Your task to perform on an android device: turn off location history Image 0: 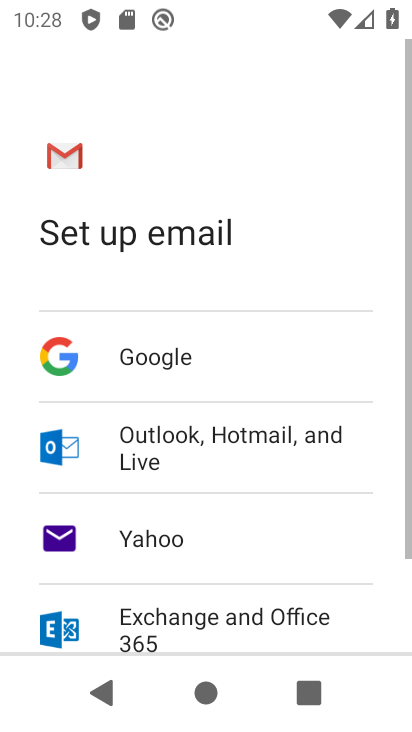
Step 0: press home button
Your task to perform on an android device: turn off location history Image 1: 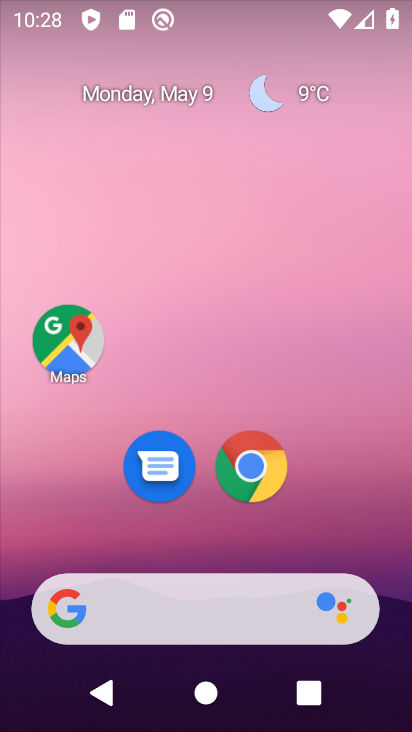
Step 1: drag from (342, 455) to (294, 106)
Your task to perform on an android device: turn off location history Image 2: 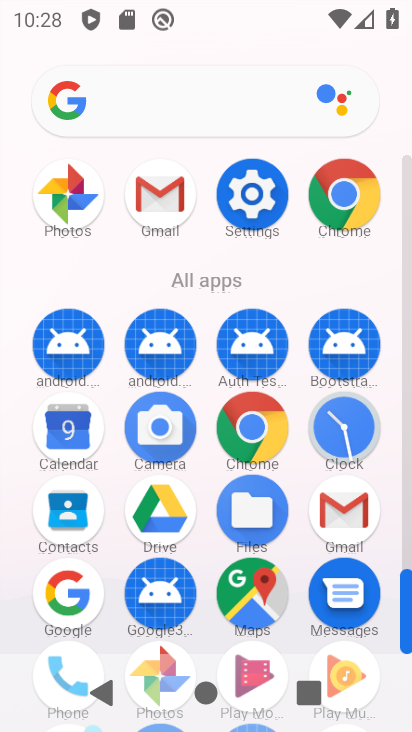
Step 2: drag from (217, 297) to (212, 137)
Your task to perform on an android device: turn off location history Image 3: 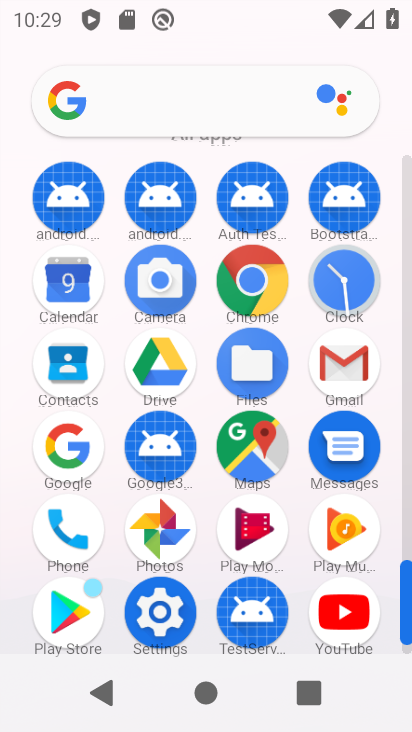
Step 3: drag from (210, 573) to (191, 318)
Your task to perform on an android device: turn off location history Image 4: 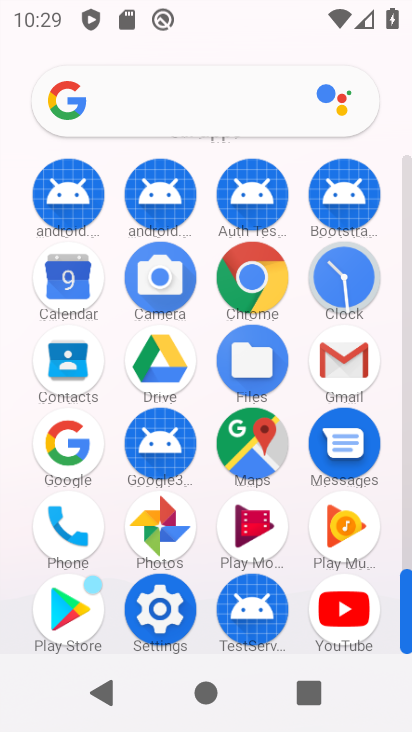
Step 4: click (159, 609)
Your task to perform on an android device: turn off location history Image 5: 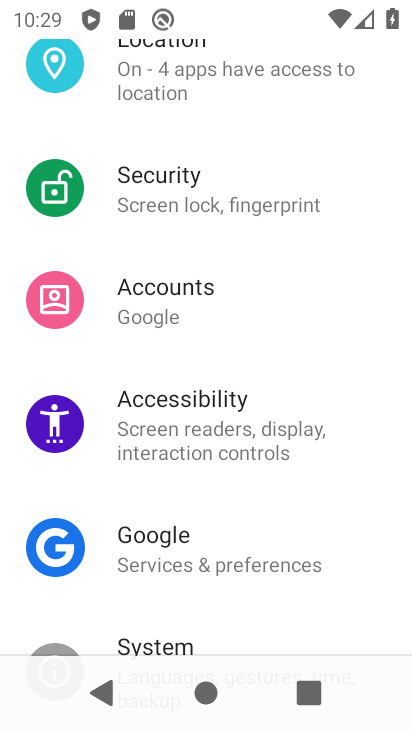
Step 5: drag from (278, 543) to (213, 236)
Your task to perform on an android device: turn off location history Image 6: 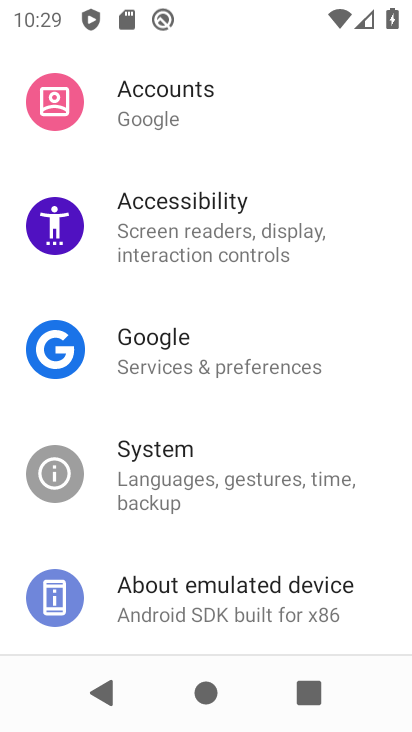
Step 6: drag from (218, 548) to (200, 184)
Your task to perform on an android device: turn off location history Image 7: 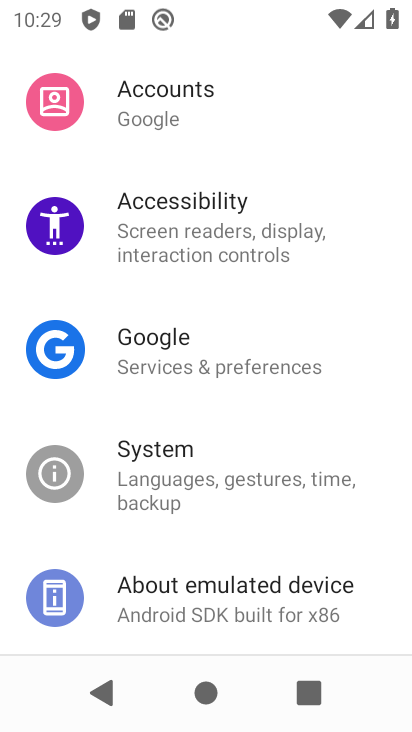
Step 7: drag from (183, 231) to (206, 616)
Your task to perform on an android device: turn off location history Image 8: 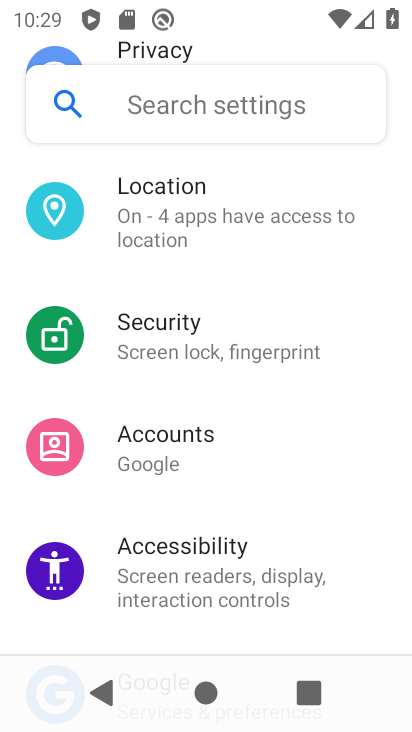
Step 8: click (140, 234)
Your task to perform on an android device: turn off location history Image 9: 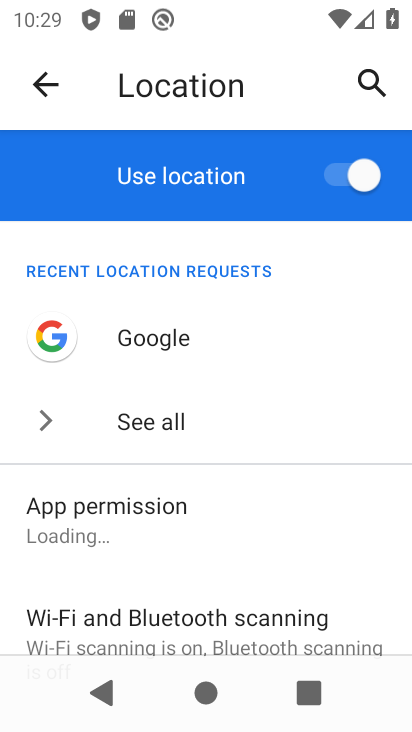
Step 9: drag from (178, 588) to (176, 256)
Your task to perform on an android device: turn off location history Image 10: 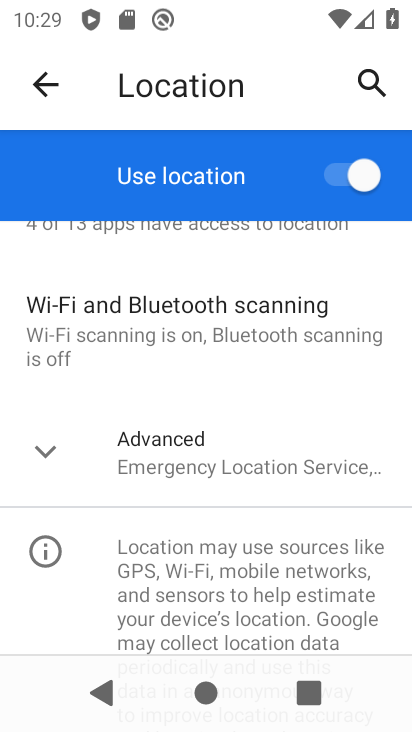
Step 10: click (161, 455)
Your task to perform on an android device: turn off location history Image 11: 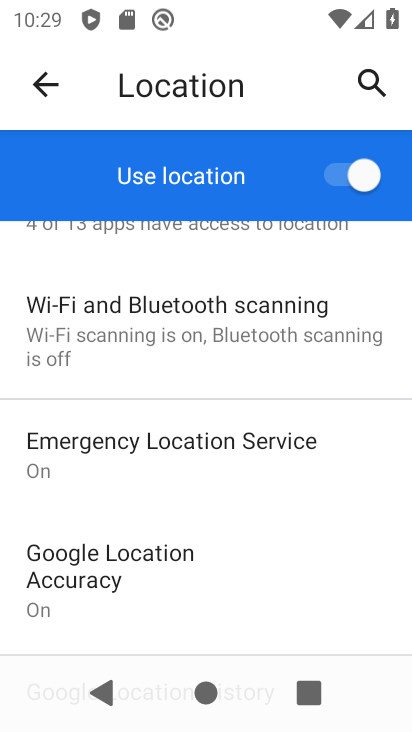
Step 11: drag from (184, 612) to (155, 281)
Your task to perform on an android device: turn off location history Image 12: 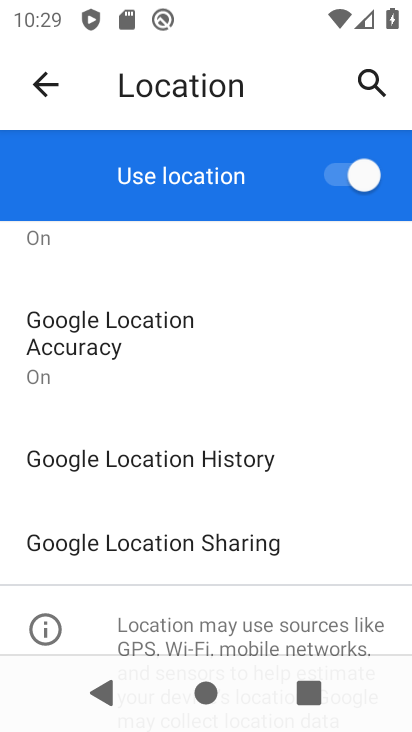
Step 12: click (175, 463)
Your task to perform on an android device: turn off location history Image 13: 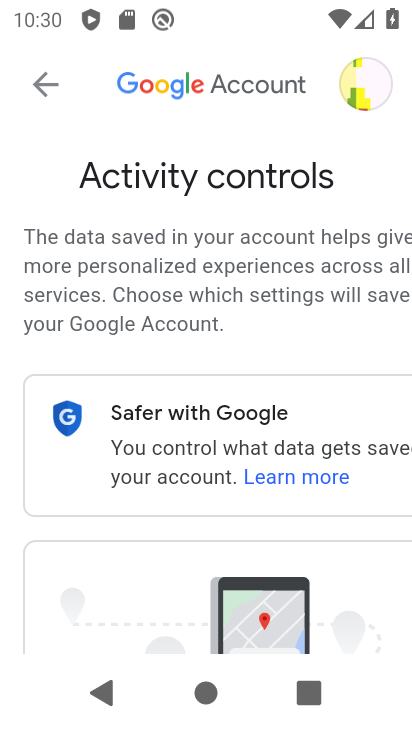
Step 13: drag from (224, 543) to (192, 206)
Your task to perform on an android device: turn off location history Image 14: 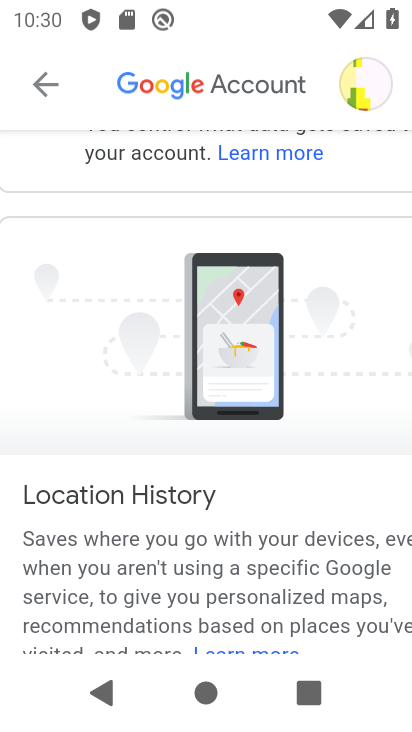
Step 14: drag from (217, 608) to (184, 247)
Your task to perform on an android device: turn off location history Image 15: 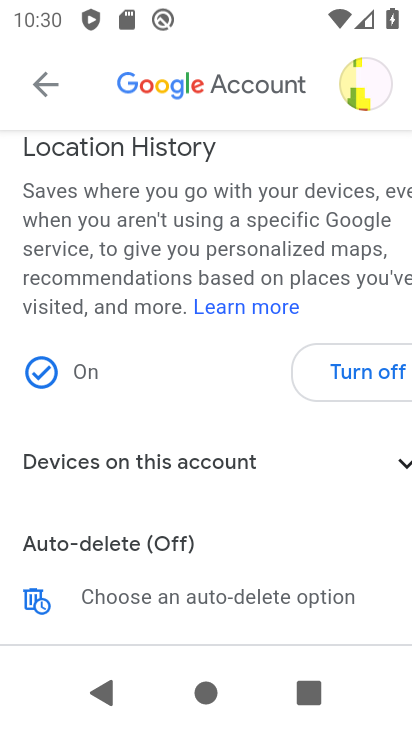
Step 15: click (351, 380)
Your task to perform on an android device: turn off location history Image 16: 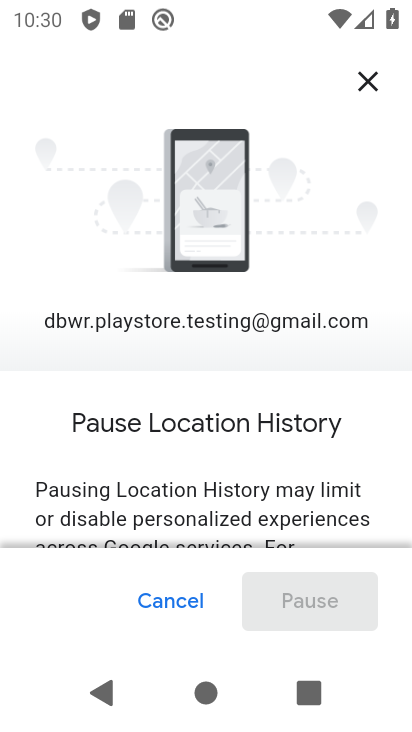
Step 16: drag from (294, 535) to (224, 133)
Your task to perform on an android device: turn off location history Image 17: 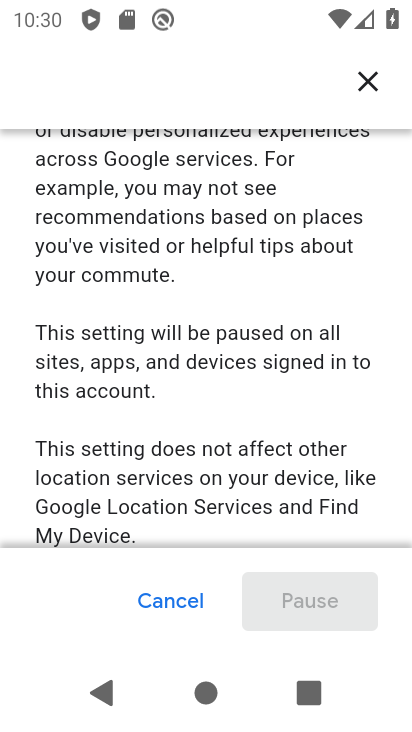
Step 17: drag from (241, 538) to (184, 115)
Your task to perform on an android device: turn off location history Image 18: 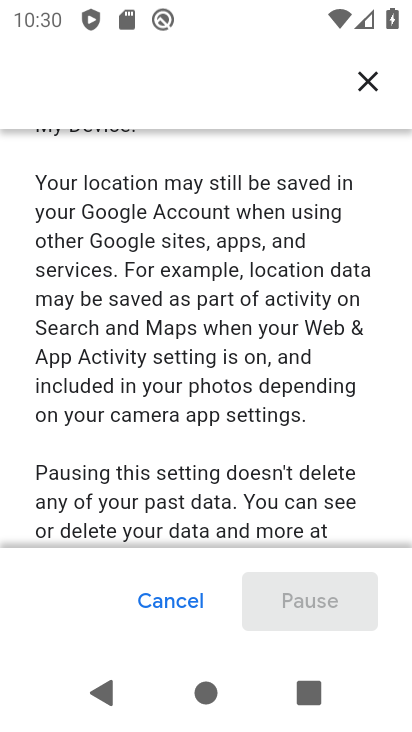
Step 18: drag from (251, 464) to (203, 51)
Your task to perform on an android device: turn off location history Image 19: 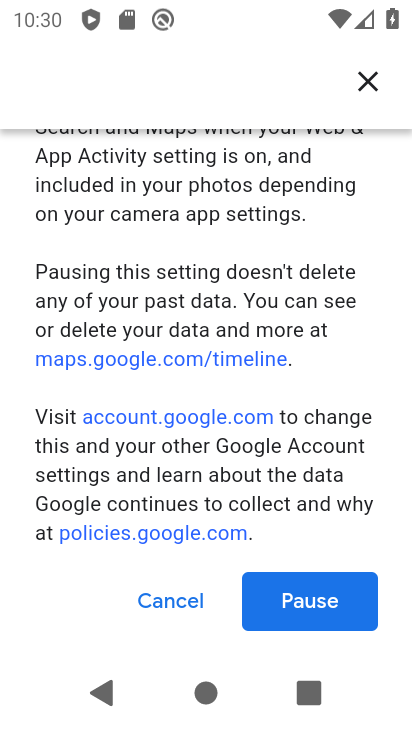
Step 19: click (284, 618)
Your task to perform on an android device: turn off location history Image 20: 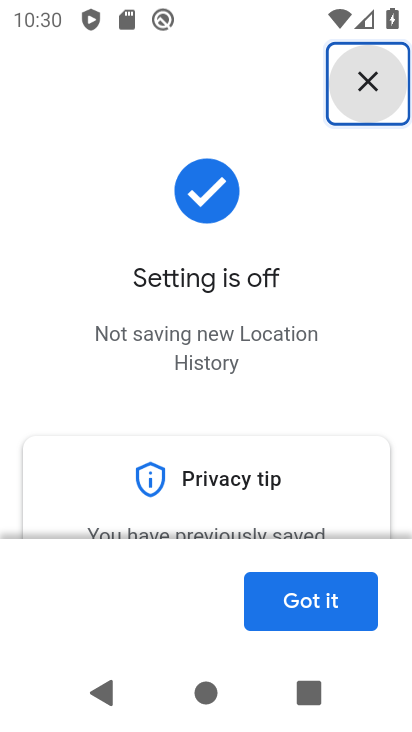
Step 20: click (309, 620)
Your task to perform on an android device: turn off location history Image 21: 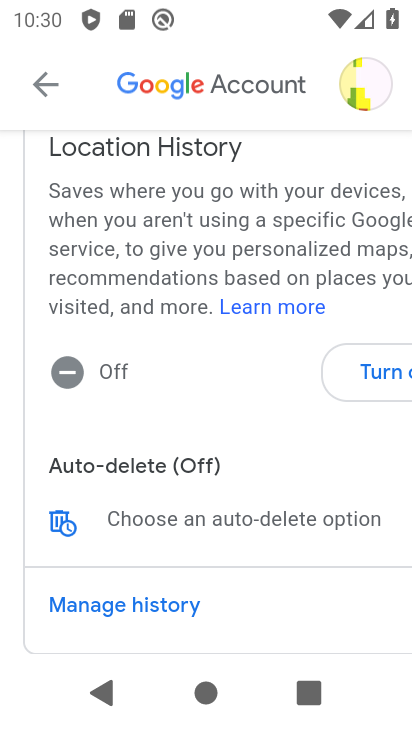
Step 21: task complete